Your task to perform on an android device: Open calendar and show me the third week of next month Image 0: 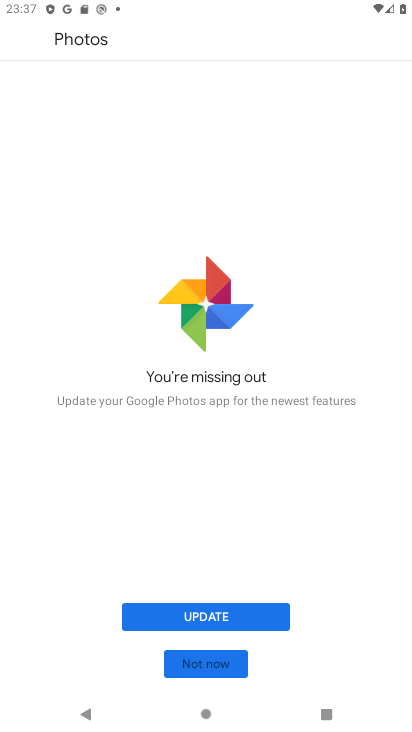
Step 0: press home button
Your task to perform on an android device: Open calendar and show me the third week of next month Image 1: 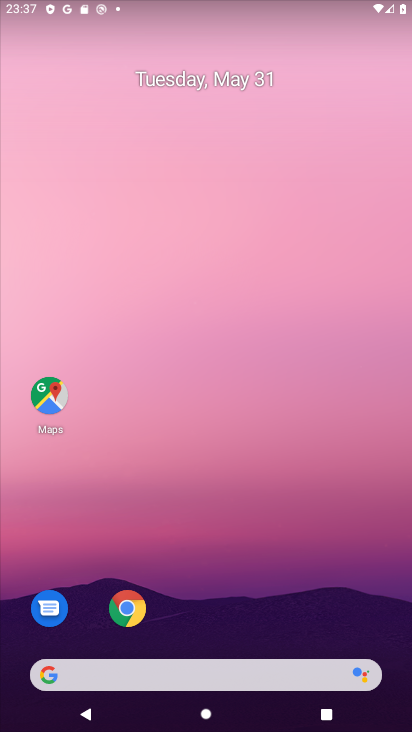
Step 1: drag from (256, 597) to (193, 25)
Your task to perform on an android device: Open calendar and show me the third week of next month Image 2: 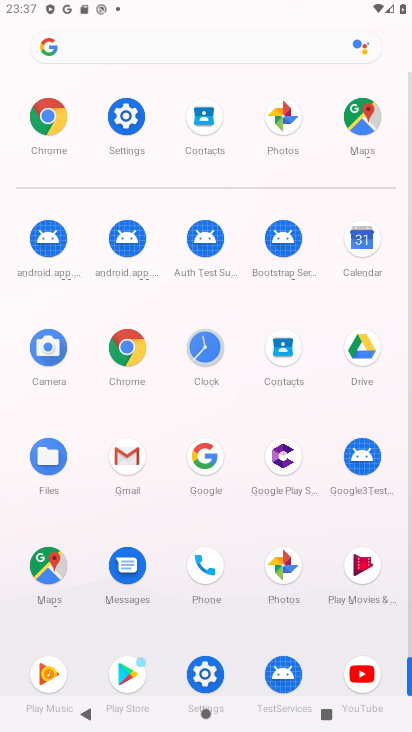
Step 2: click (375, 254)
Your task to perform on an android device: Open calendar and show me the third week of next month Image 3: 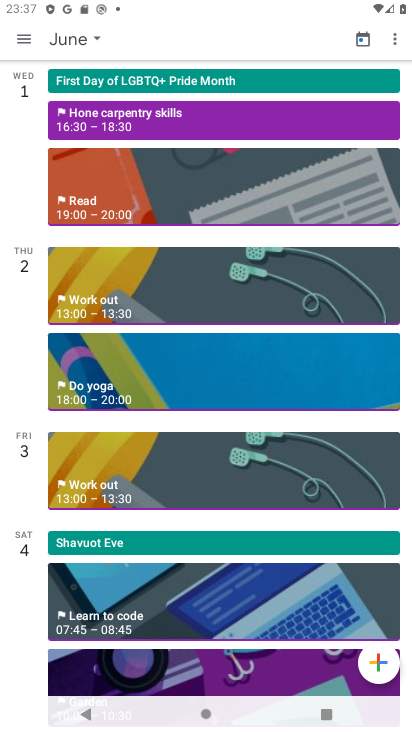
Step 3: click (92, 32)
Your task to perform on an android device: Open calendar and show me the third week of next month Image 4: 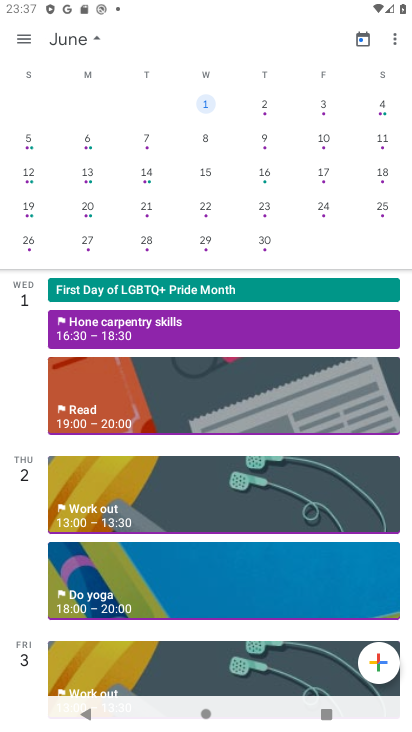
Step 4: drag from (369, 159) to (22, 235)
Your task to perform on an android device: Open calendar and show me the third week of next month Image 5: 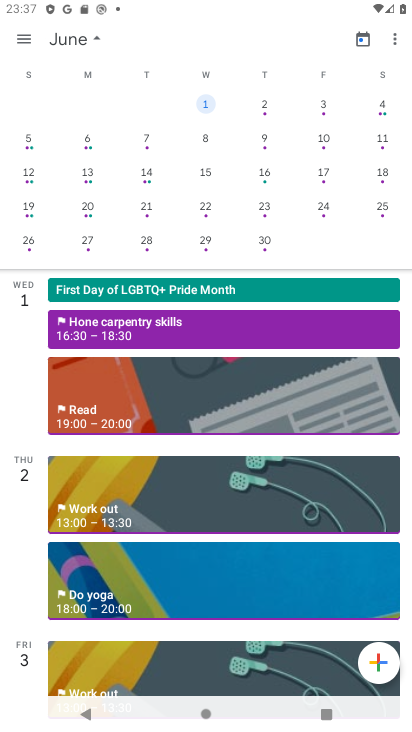
Step 5: drag from (391, 176) to (46, 222)
Your task to perform on an android device: Open calendar and show me the third week of next month Image 6: 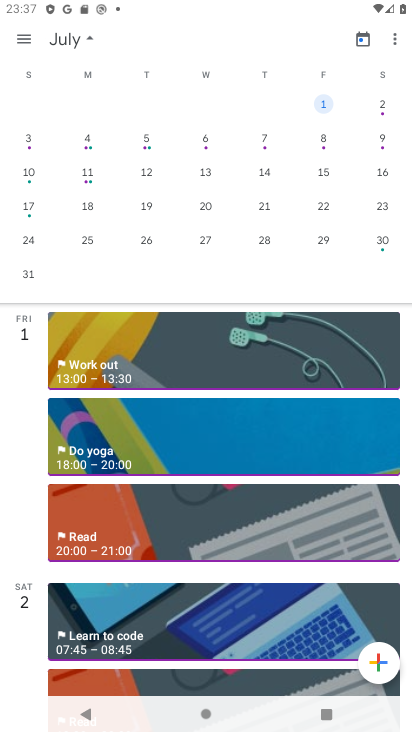
Step 6: click (324, 167)
Your task to perform on an android device: Open calendar and show me the third week of next month Image 7: 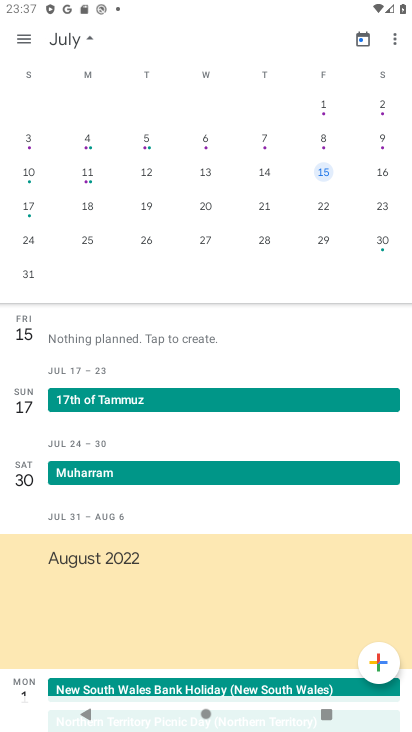
Step 7: task complete